Your task to perform on an android device: turn on showing notifications on the lock screen Image 0: 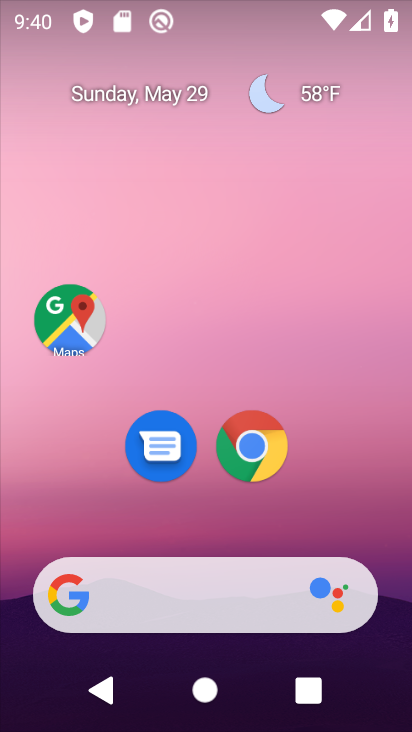
Step 0: drag from (164, 490) to (205, 200)
Your task to perform on an android device: turn on showing notifications on the lock screen Image 1: 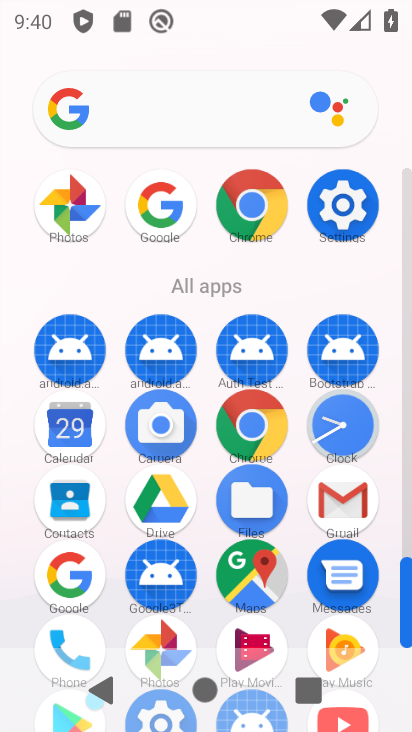
Step 1: click (337, 215)
Your task to perform on an android device: turn on showing notifications on the lock screen Image 2: 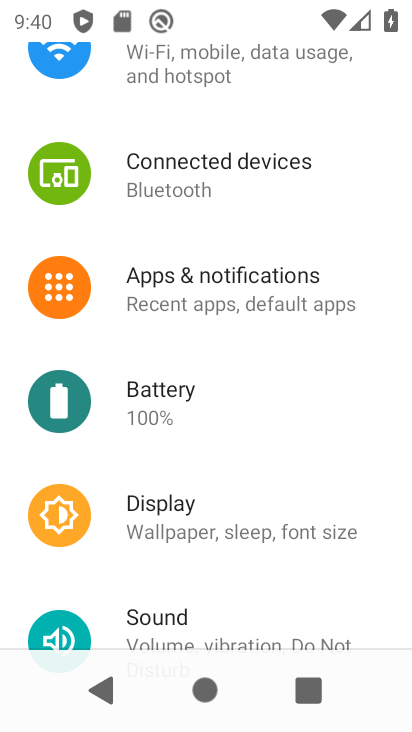
Step 2: drag from (227, 627) to (279, 319)
Your task to perform on an android device: turn on showing notifications on the lock screen Image 3: 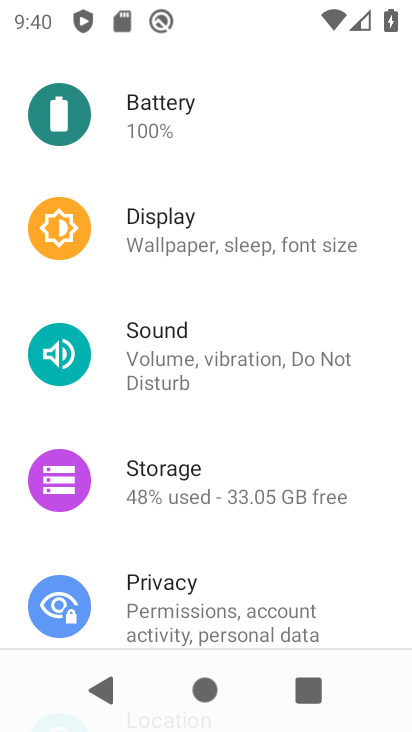
Step 3: click (160, 594)
Your task to perform on an android device: turn on showing notifications on the lock screen Image 4: 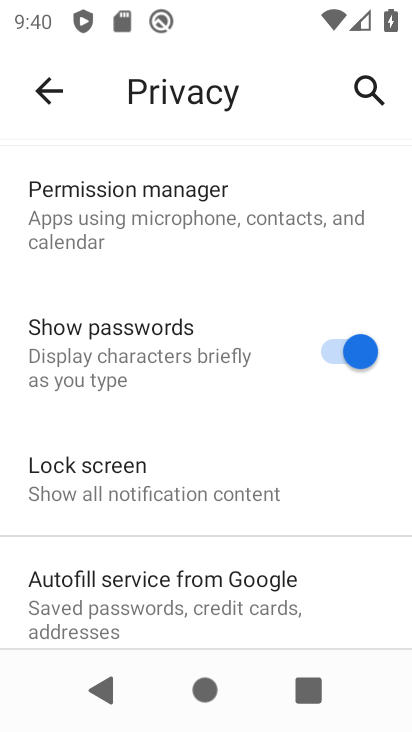
Step 4: click (131, 471)
Your task to perform on an android device: turn on showing notifications on the lock screen Image 5: 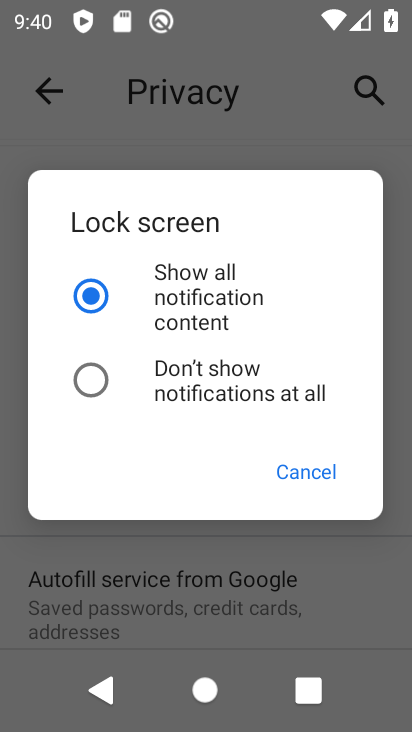
Step 5: task complete